Your task to perform on an android device: turn off improve location accuracy Image 0: 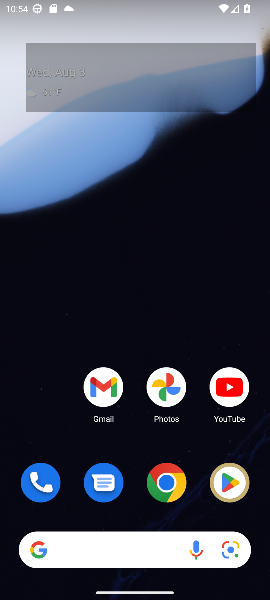
Step 0: click (140, 516)
Your task to perform on an android device: turn off improve location accuracy Image 1: 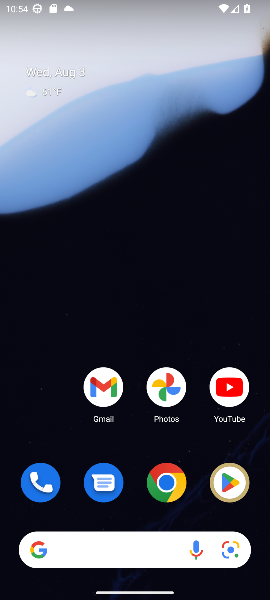
Step 1: drag from (140, 516) to (62, 85)
Your task to perform on an android device: turn off improve location accuracy Image 2: 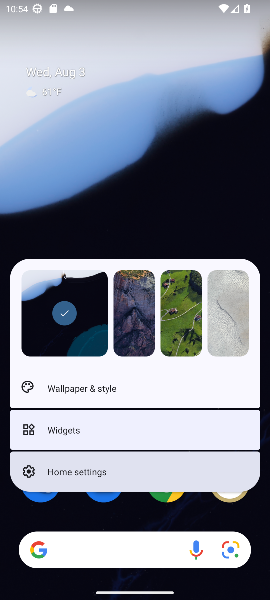
Step 2: click (62, 85)
Your task to perform on an android device: turn off improve location accuracy Image 3: 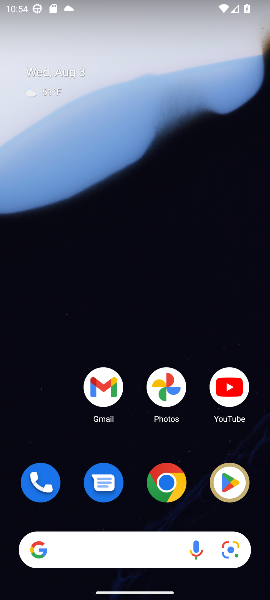
Step 3: drag from (141, 522) to (128, 74)
Your task to perform on an android device: turn off improve location accuracy Image 4: 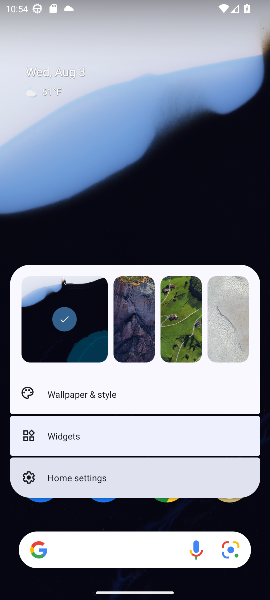
Step 4: click (128, 74)
Your task to perform on an android device: turn off improve location accuracy Image 5: 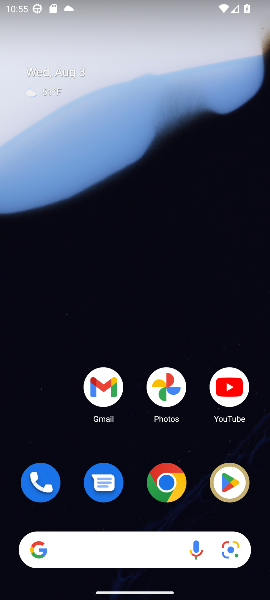
Step 5: drag from (132, 524) to (103, 99)
Your task to perform on an android device: turn off improve location accuracy Image 6: 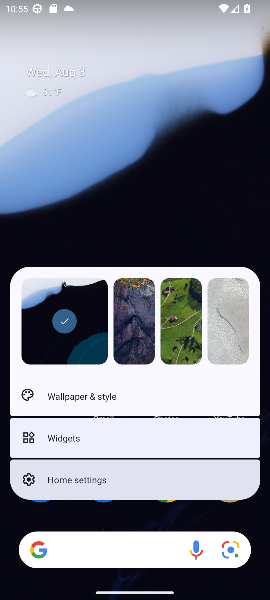
Step 6: click (103, 99)
Your task to perform on an android device: turn off improve location accuracy Image 7: 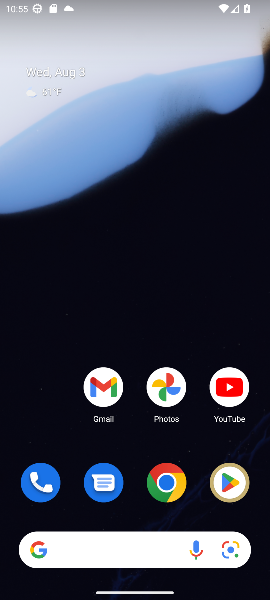
Step 7: drag from (78, 518) to (37, 80)
Your task to perform on an android device: turn off improve location accuracy Image 8: 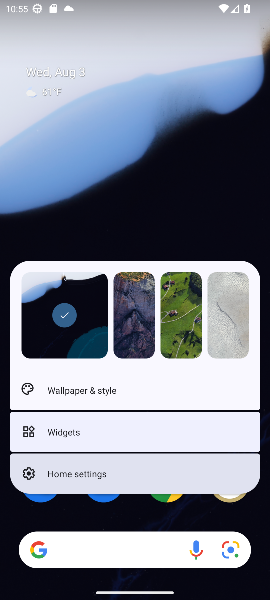
Step 8: click (37, 80)
Your task to perform on an android device: turn off improve location accuracy Image 9: 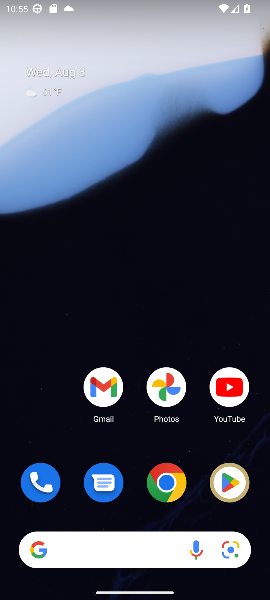
Step 9: drag from (67, 530) to (62, 32)
Your task to perform on an android device: turn off improve location accuracy Image 10: 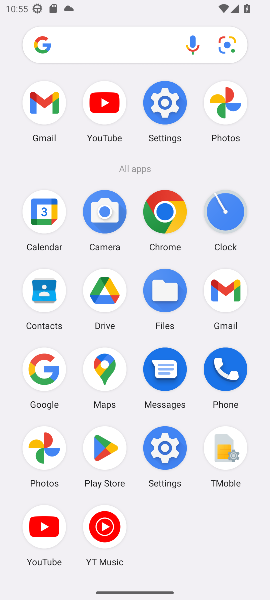
Step 10: click (154, 440)
Your task to perform on an android device: turn off improve location accuracy Image 11: 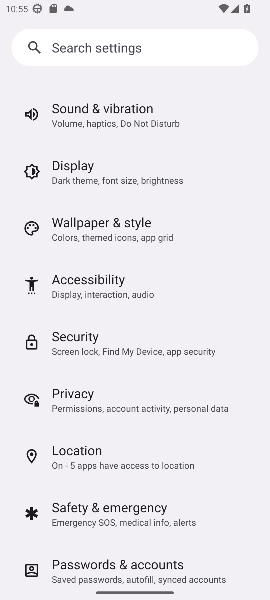
Step 11: click (101, 441)
Your task to perform on an android device: turn off improve location accuracy Image 12: 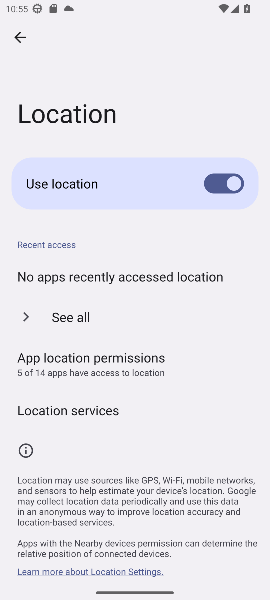
Step 12: task complete